Your task to perform on an android device: toggle notifications settings in the gmail app Image 0: 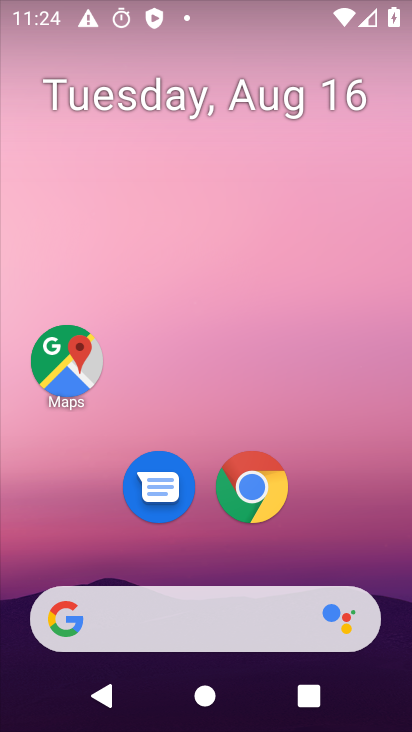
Step 0: drag from (332, 550) to (275, 97)
Your task to perform on an android device: toggle notifications settings in the gmail app Image 1: 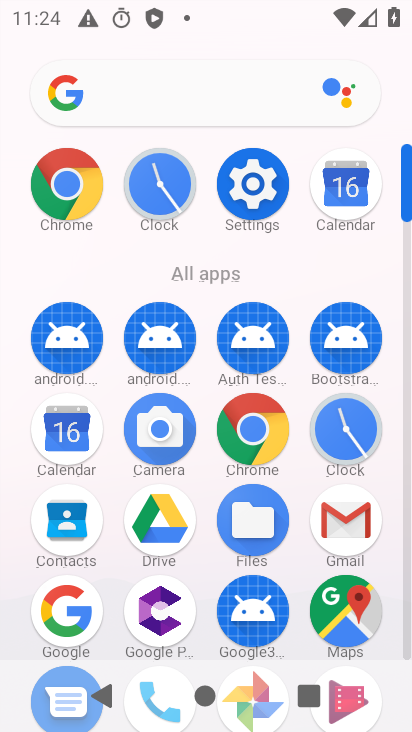
Step 1: click (338, 532)
Your task to perform on an android device: toggle notifications settings in the gmail app Image 2: 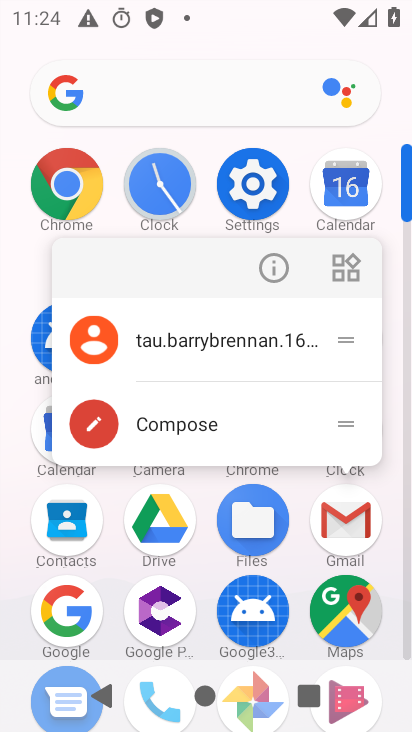
Step 2: click (284, 265)
Your task to perform on an android device: toggle notifications settings in the gmail app Image 3: 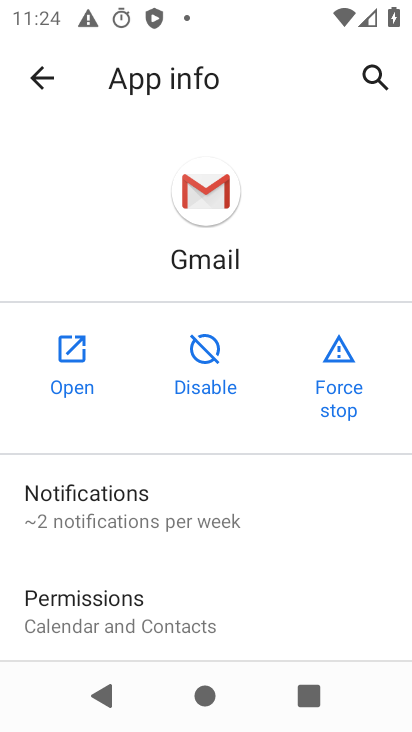
Step 3: click (236, 518)
Your task to perform on an android device: toggle notifications settings in the gmail app Image 4: 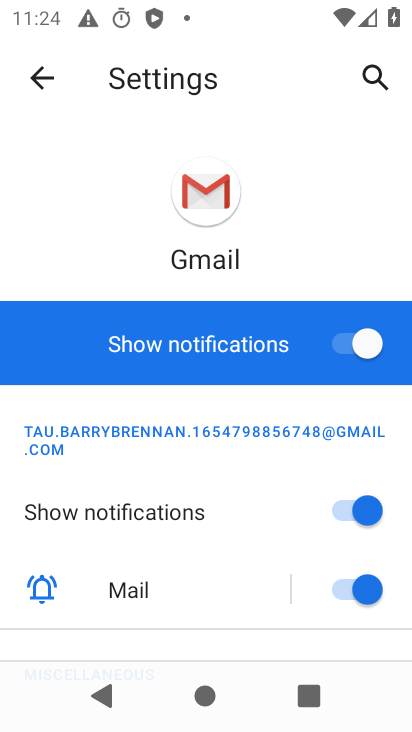
Step 4: click (344, 346)
Your task to perform on an android device: toggle notifications settings in the gmail app Image 5: 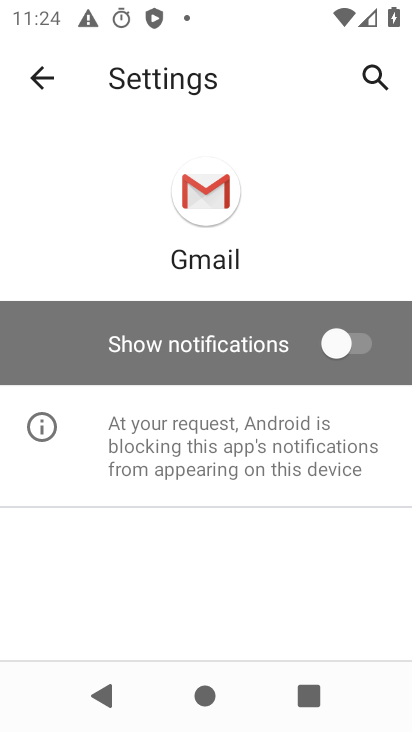
Step 5: task complete